Your task to perform on an android device: change your default location settings in chrome Image 0: 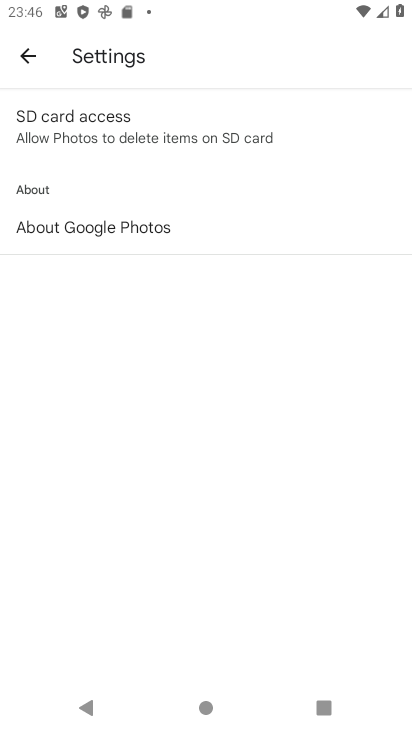
Step 0: press home button
Your task to perform on an android device: change your default location settings in chrome Image 1: 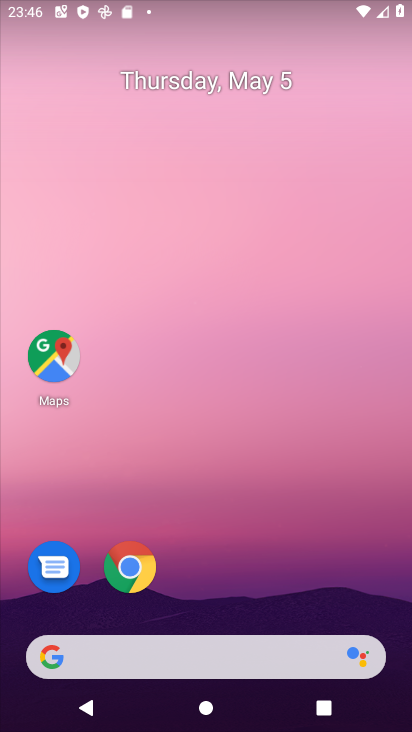
Step 1: click (127, 576)
Your task to perform on an android device: change your default location settings in chrome Image 2: 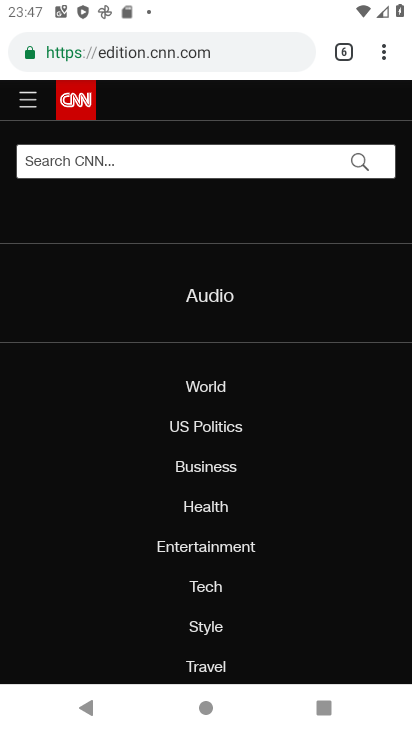
Step 2: drag from (384, 55) to (194, 622)
Your task to perform on an android device: change your default location settings in chrome Image 3: 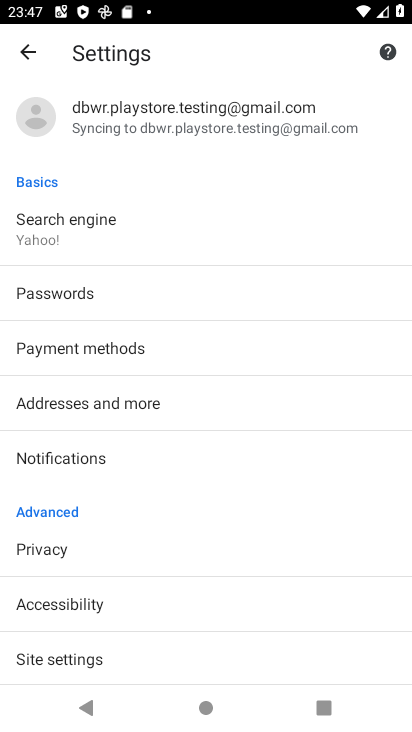
Step 3: drag from (135, 625) to (151, 370)
Your task to perform on an android device: change your default location settings in chrome Image 4: 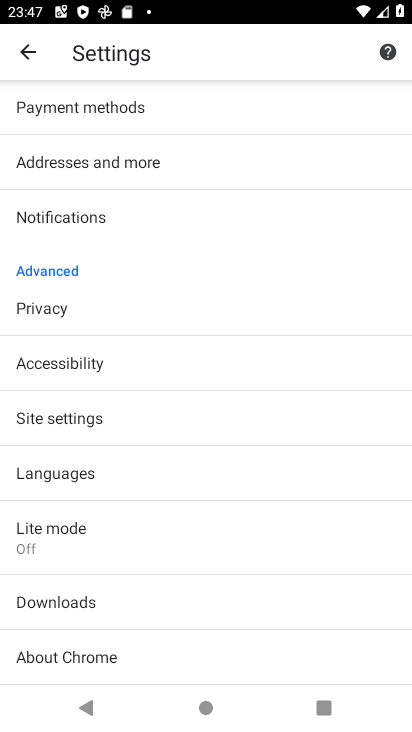
Step 4: click (95, 426)
Your task to perform on an android device: change your default location settings in chrome Image 5: 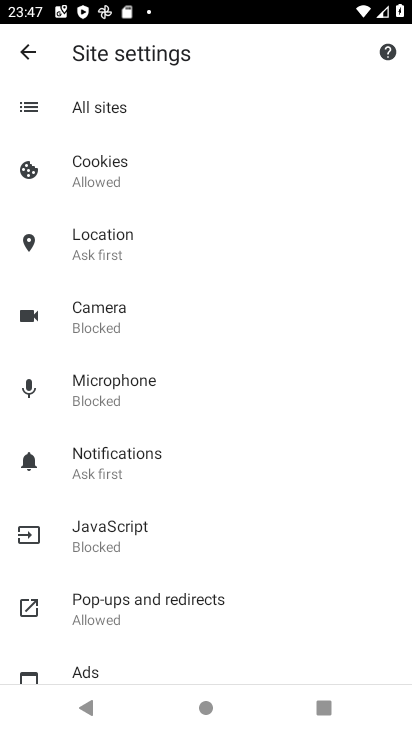
Step 5: drag from (170, 632) to (158, 346)
Your task to perform on an android device: change your default location settings in chrome Image 6: 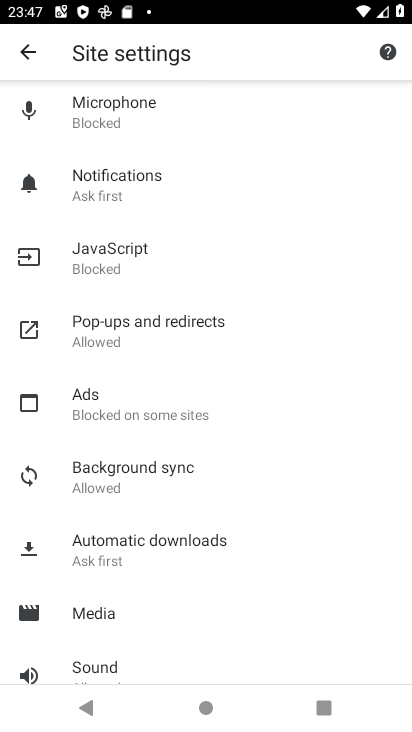
Step 6: drag from (114, 664) to (148, 673)
Your task to perform on an android device: change your default location settings in chrome Image 7: 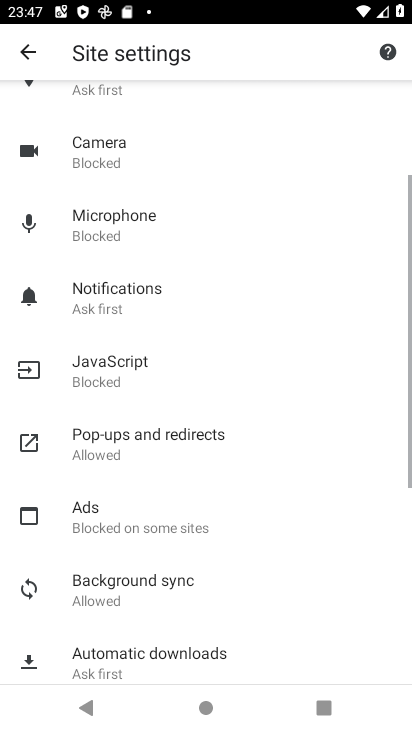
Step 7: drag from (166, 227) to (205, 490)
Your task to perform on an android device: change your default location settings in chrome Image 8: 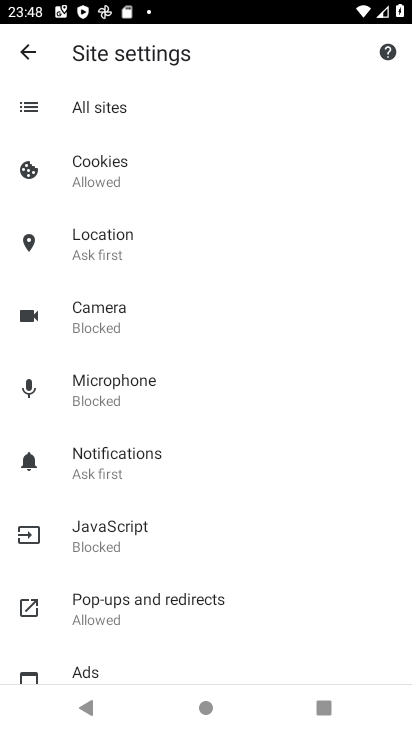
Step 8: click (132, 255)
Your task to perform on an android device: change your default location settings in chrome Image 9: 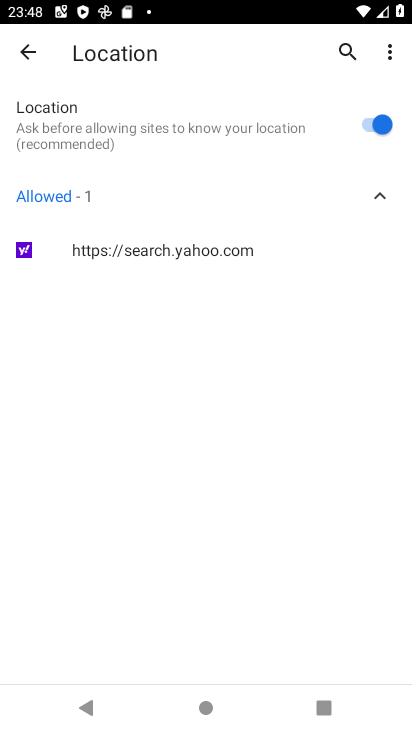
Step 9: task complete